Your task to perform on an android device: Go to CNN.com Image 0: 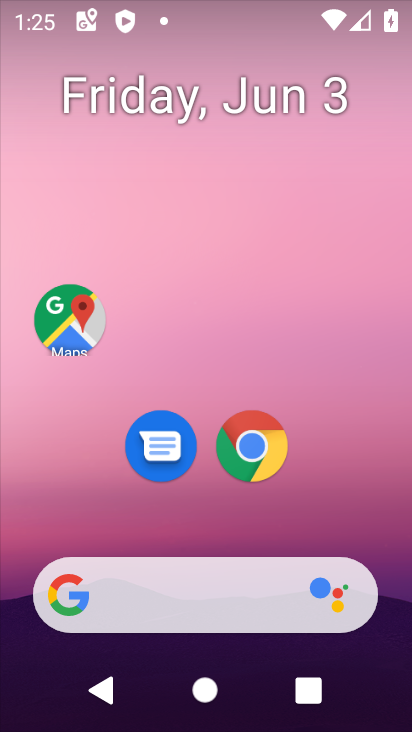
Step 0: click (208, 596)
Your task to perform on an android device: Go to CNN.com Image 1: 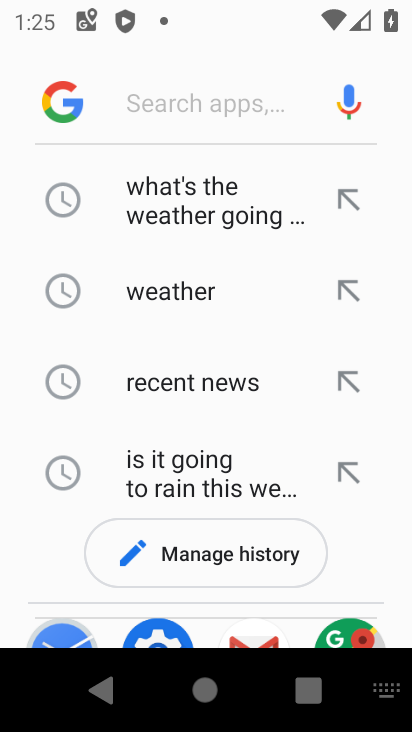
Step 1: type "cnn.com"
Your task to perform on an android device: Go to CNN.com Image 2: 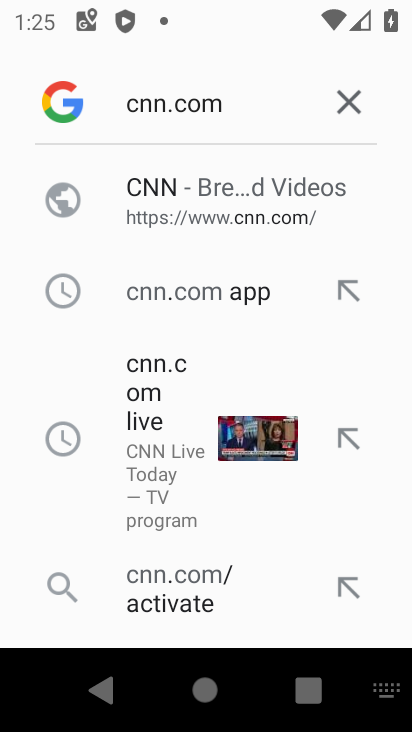
Step 2: click (193, 196)
Your task to perform on an android device: Go to CNN.com Image 3: 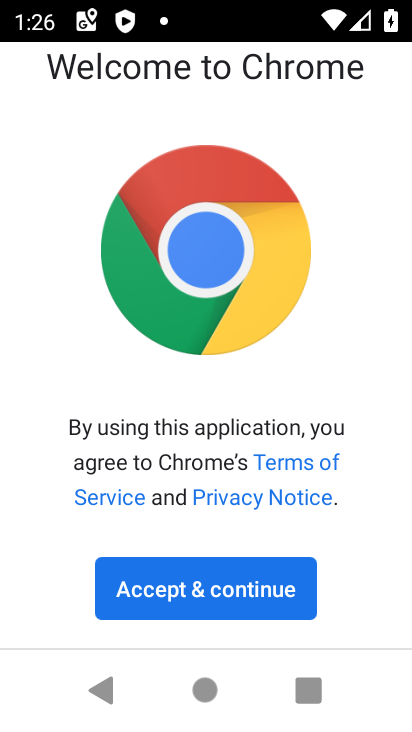
Step 3: click (235, 598)
Your task to perform on an android device: Go to CNN.com Image 4: 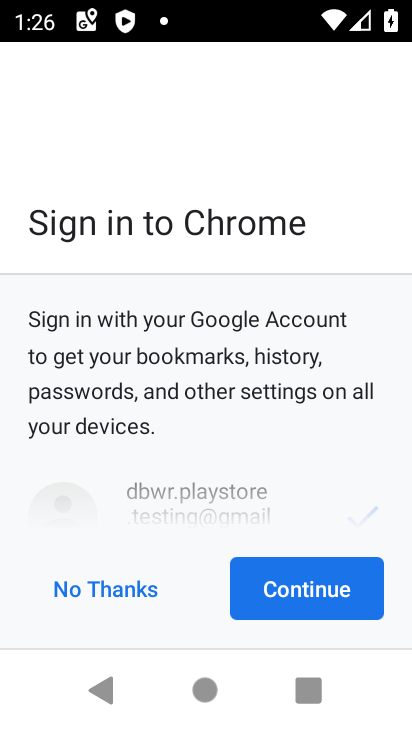
Step 4: click (327, 604)
Your task to perform on an android device: Go to CNN.com Image 5: 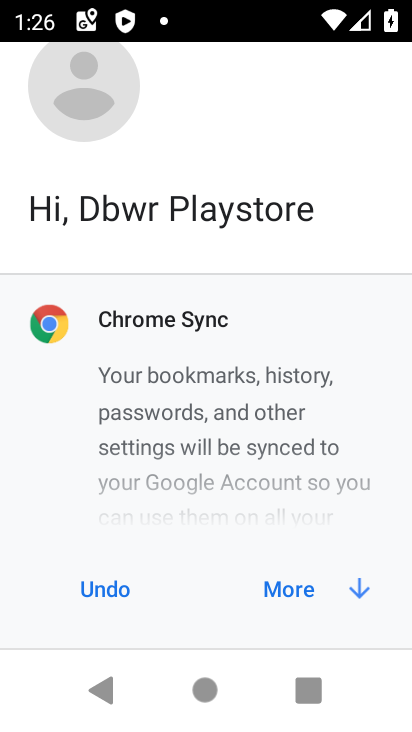
Step 5: click (314, 590)
Your task to perform on an android device: Go to CNN.com Image 6: 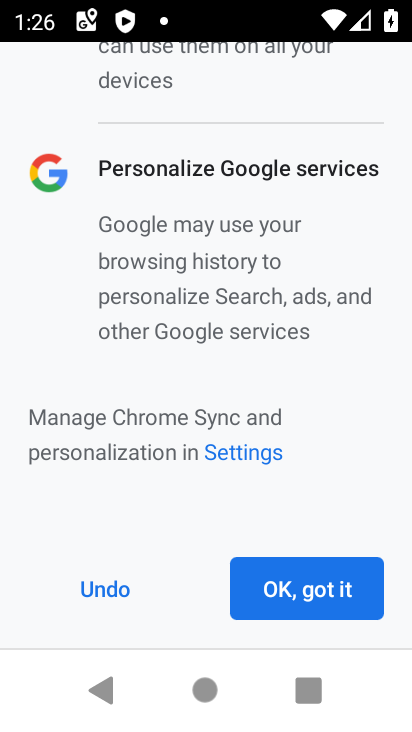
Step 6: click (305, 557)
Your task to perform on an android device: Go to CNN.com Image 7: 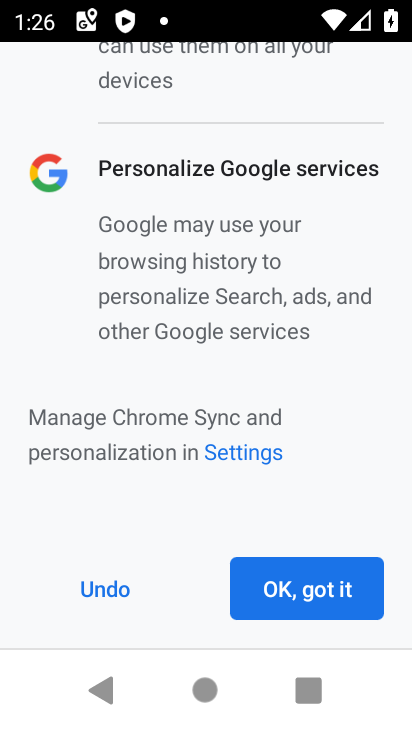
Step 7: click (300, 591)
Your task to perform on an android device: Go to CNN.com Image 8: 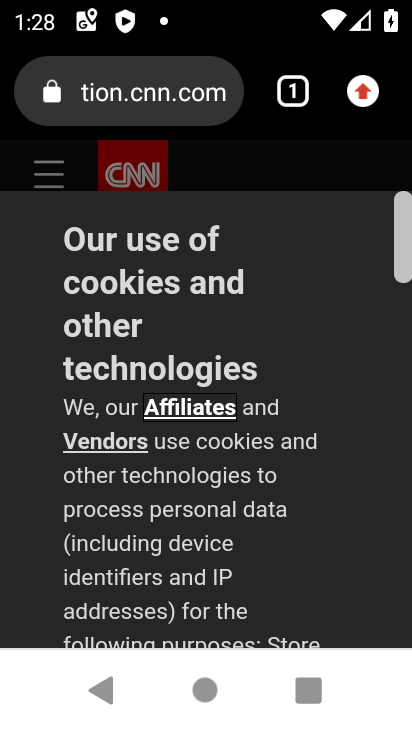
Step 8: task complete